Your task to perform on an android device: see tabs open on other devices in the chrome app Image 0: 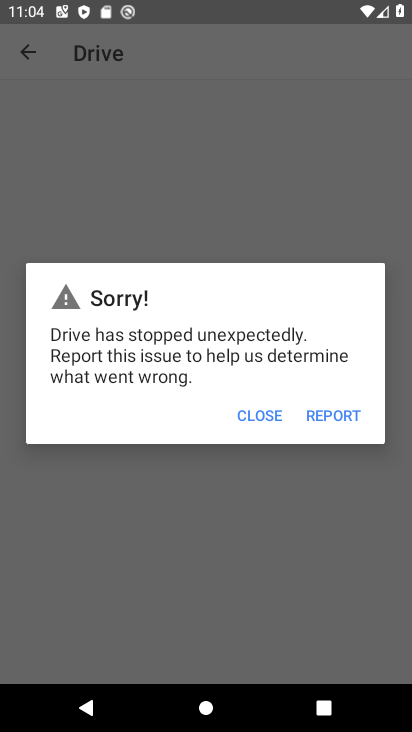
Step 0: press home button
Your task to perform on an android device: see tabs open on other devices in the chrome app Image 1: 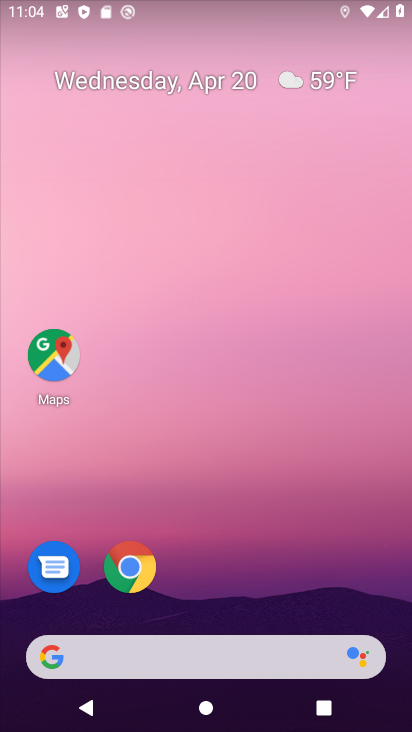
Step 1: click (140, 569)
Your task to perform on an android device: see tabs open on other devices in the chrome app Image 2: 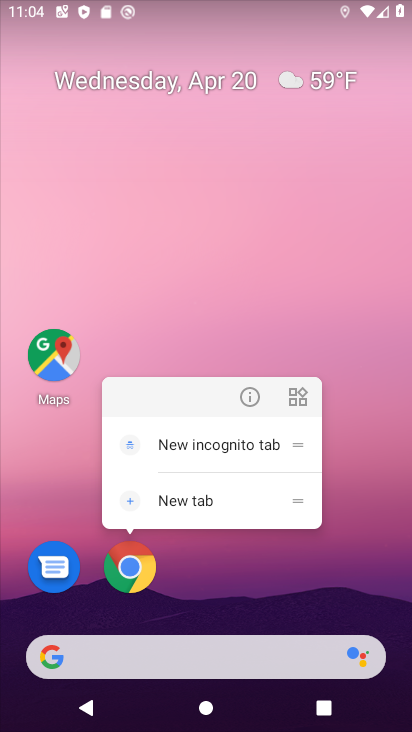
Step 2: click (140, 569)
Your task to perform on an android device: see tabs open on other devices in the chrome app Image 3: 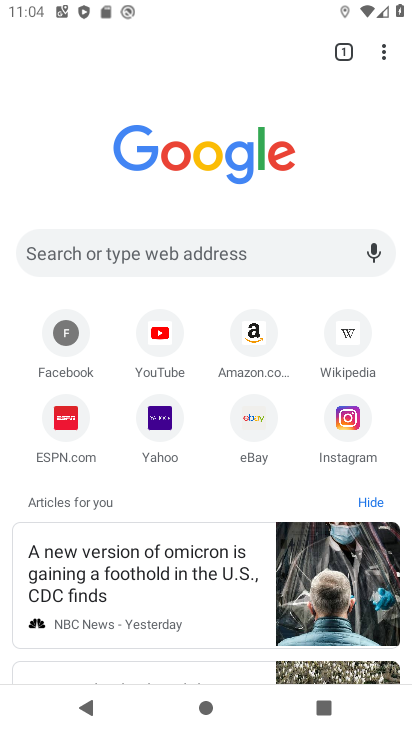
Step 3: click (382, 54)
Your task to perform on an android device: see tabs open on other devices in the chrome app Image 4: 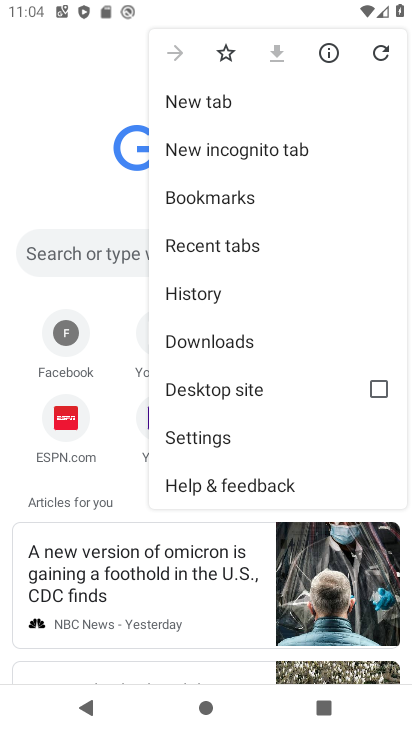
Step 4: click (230, 244)
Your task to perform on an android device: see tabs open on other devices in the chrome app Image 5: 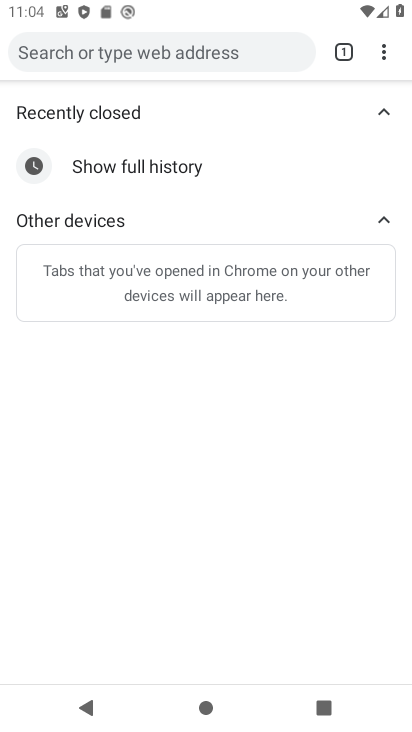
Step 5: task complete